Your task to perform on an android device: Open Chrome and go to the settings page Image 0: 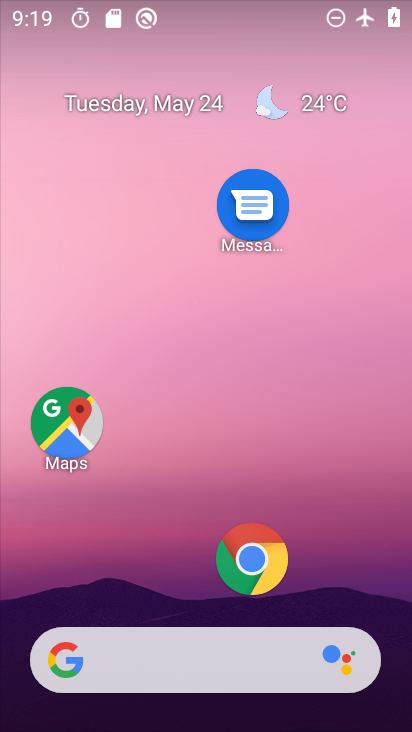
Step 0: click (240, 556)
Your task to perform on an android device: Open Chrome and go to the settings page Image 1: 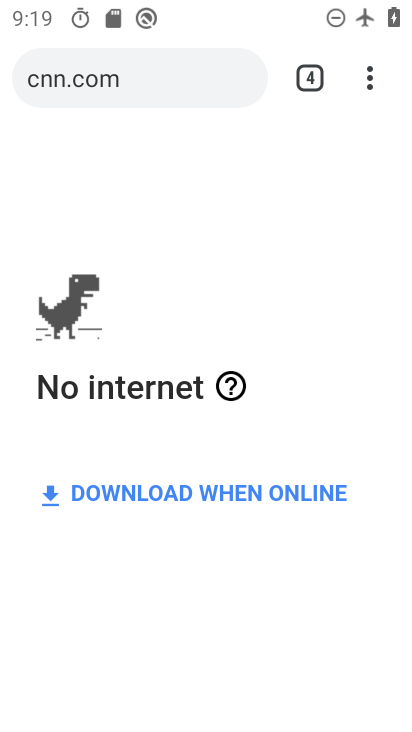
Step 1: task complete